Your task to perform on an android device: delete a single message in the gmail app Image 0: 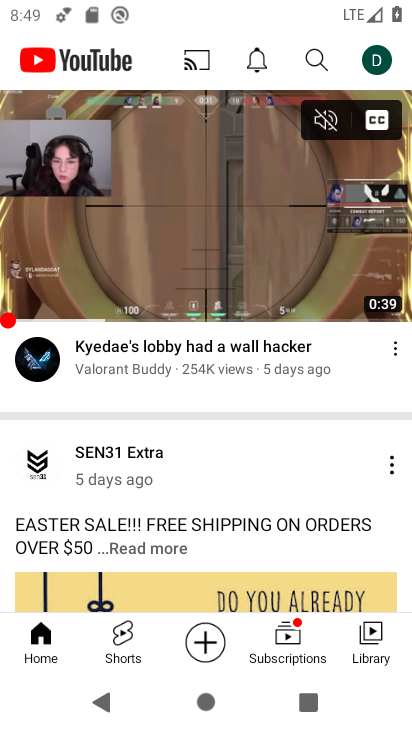
Step 0: press home button
Your task to perform on an android device: delete a single message in the gmail app Image 1: 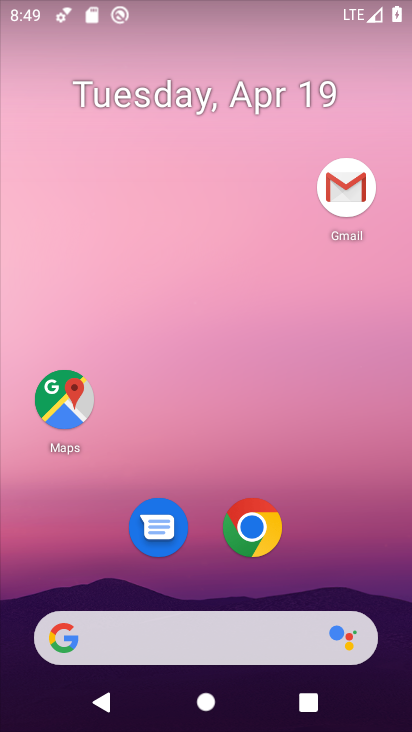
Step 1: drag from (368, 554) to (373, 163)
Your task to perform on an android device: delete a single message in the gmail app Image 2: 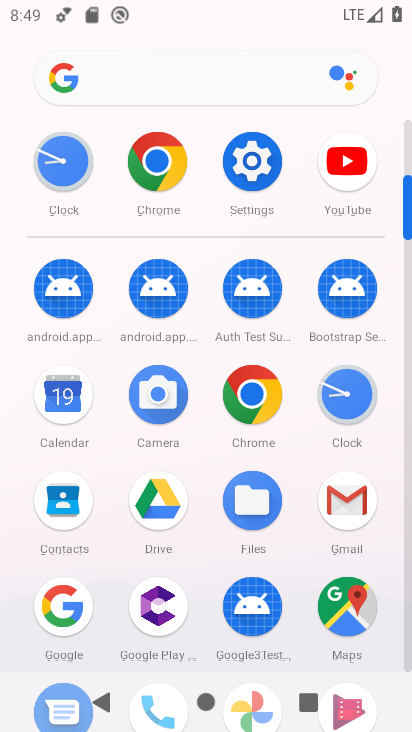
Step 2: drag from (383, 457) to (386, 238)
Your task to perform on an android device: delete a single message in the gmail app Image 3: 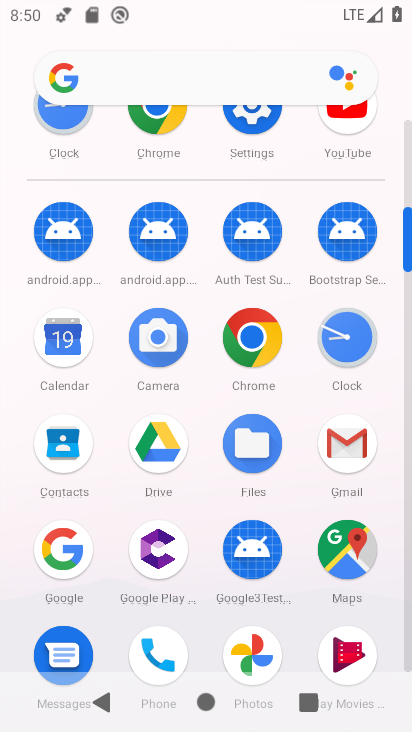
Step 3: click (364, 452)
Your task to perform on an android device: delete a single message in the gmail app Image 4: 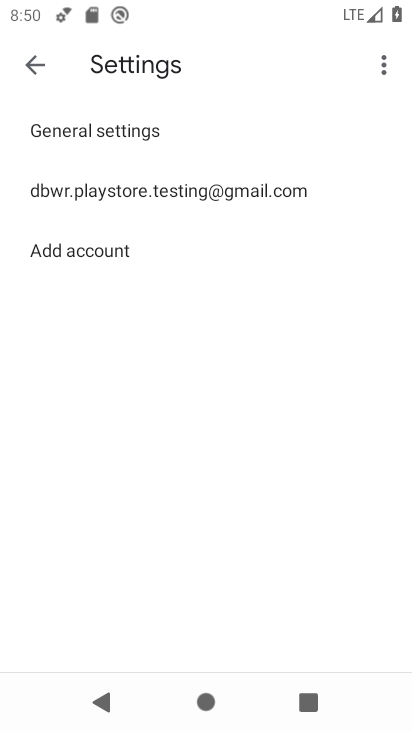
Step 4: click (22, 65)
Your task to perform on an android device: delete a single message in the gmail app Image 5: 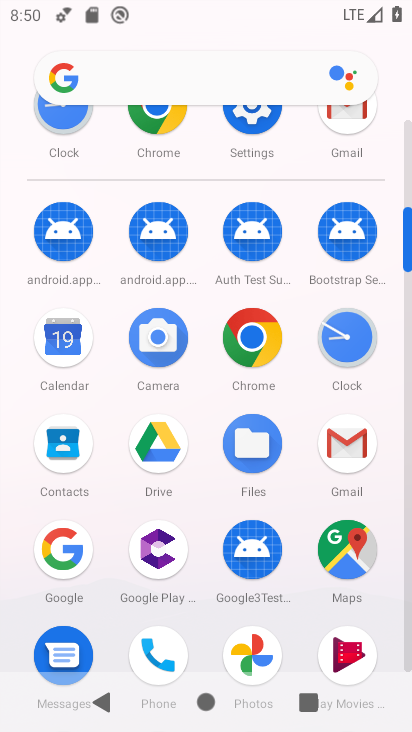
Step 5: click (351, 431)
Your task to perform on an android device: delete a single message in the gmail app Image 6: 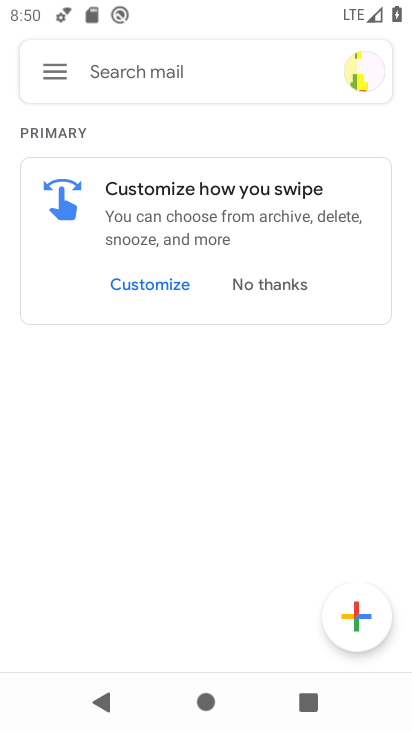
Step 6: click (58, 86)
Your task to perform on an android device: delete a single message in the gmail app Image 7: 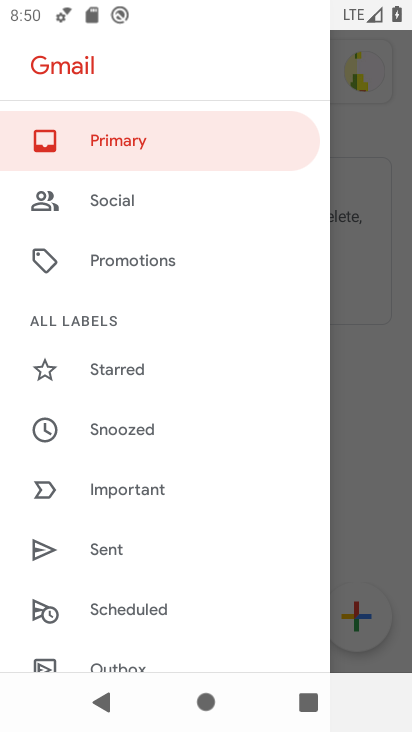
Step 7: drag from (222, 501) to (234, 217)
Your task to perform on an android device: delete a single message in the gmail app Image 8: 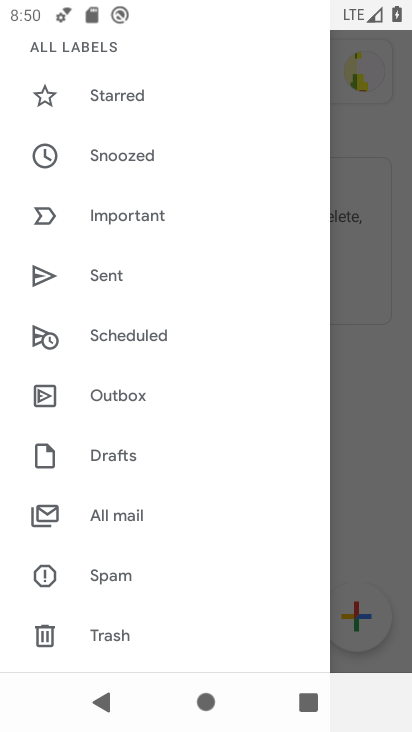
Step 8: click (156, 514)
Your task to perform on an android device: delete a single message in the gmail app Image 9: 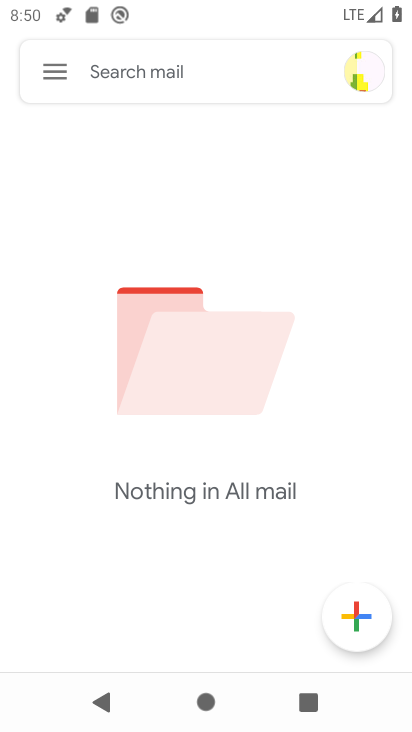
Step 9: task complete